Your task to perform on an android device: Play the last video I watched on Youtube Image 0: 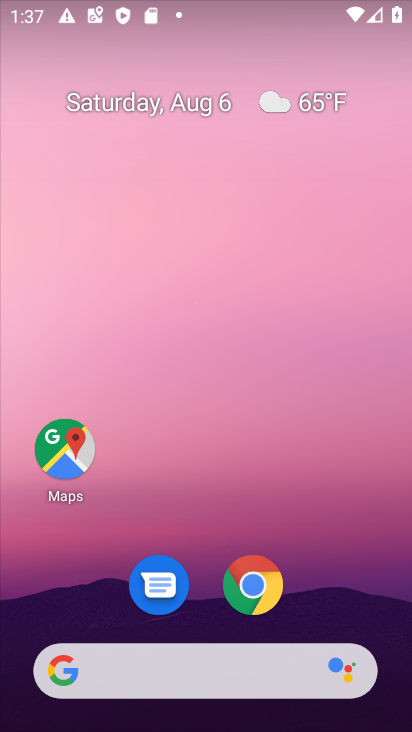
Step 0: drag from (316, 564) to (332, 0)
Your task to perform on an android device: Play the last video I watched on Youtube Image 1: 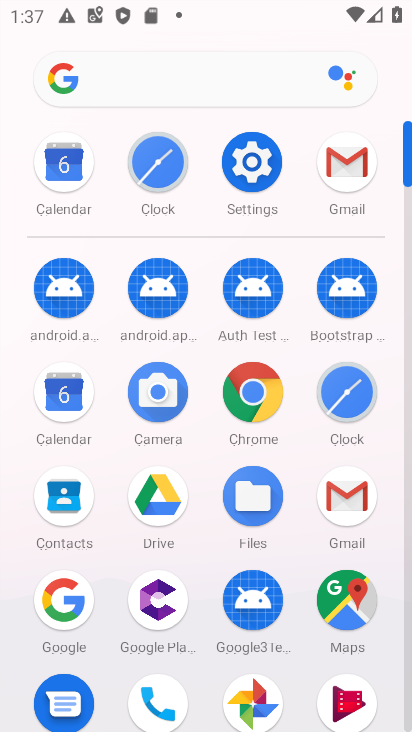
Step 1: drag from (298, 449) to (317, 61)
Your task to perform on an android device: Play the last video I watched on Youtube Image 2: 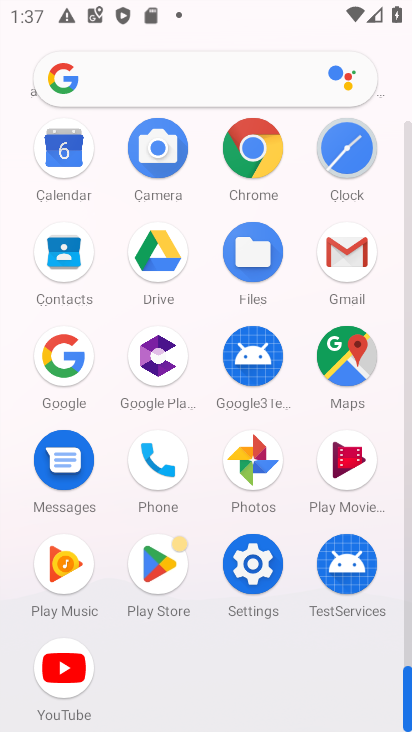
Step 2: click (72, 671)
Your task to perform on an android device: Play the last video I watched on Youtube Image 3: 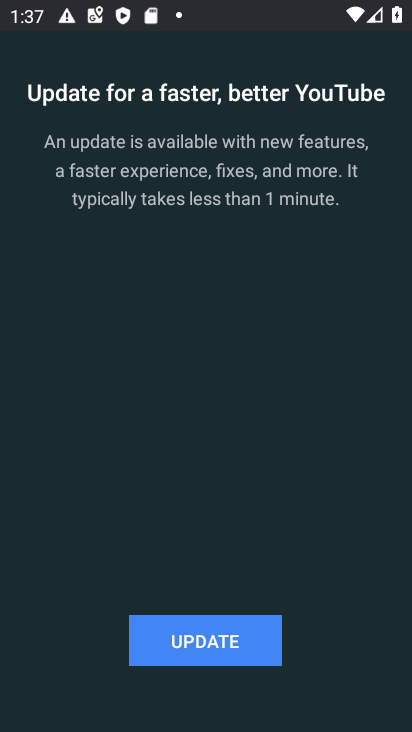
Step 3: click (213, 639)
Your task to perform on an android device: Play the last video I watched on Youtube Image 4: 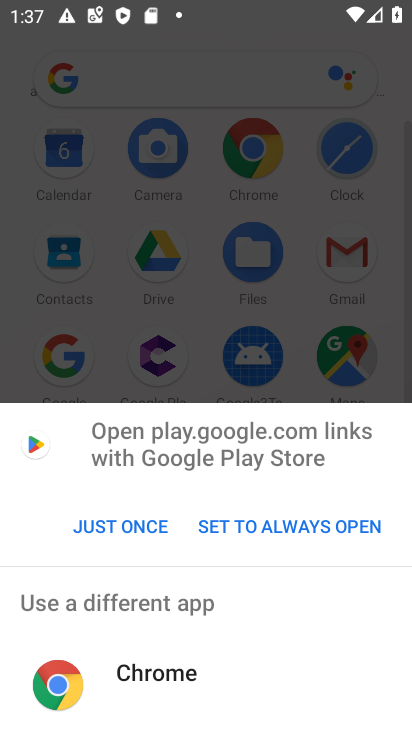
Step 4: click (144, 522)
Your task to perform on an android device: Play the last video I watched on Youtube Image 5: 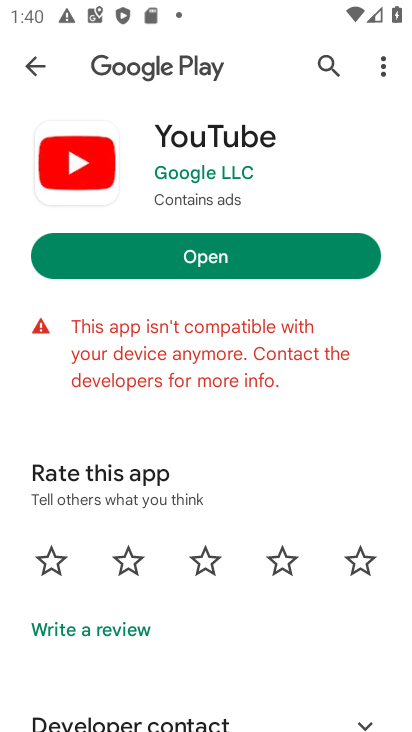
Step 5: task complete